Your task to perform on an android device: Find coffee shops on Maps Image 0: 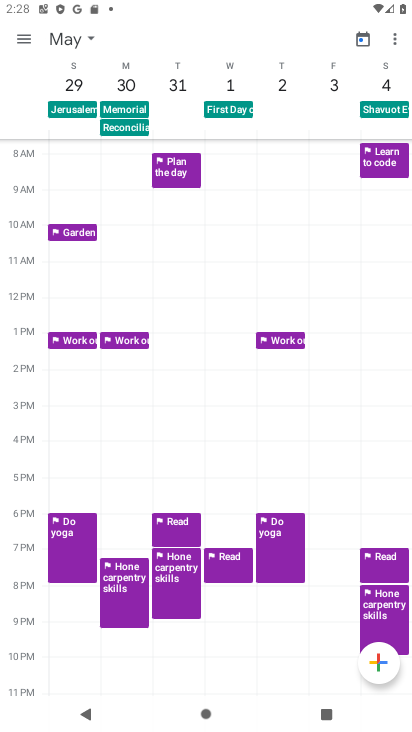
Step 0: press home button
Your task to perform on an android device: Find coffee shops on Maps Image 1: 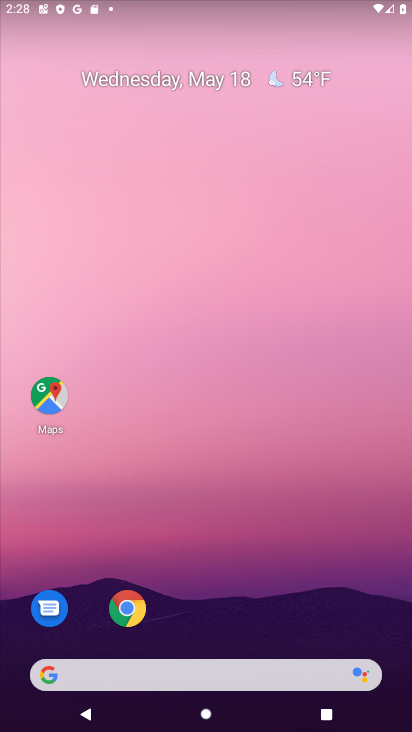
Step 1: click (53, 396)
Your task to perform on an android device: Find coffee shops on Maps Image 2: 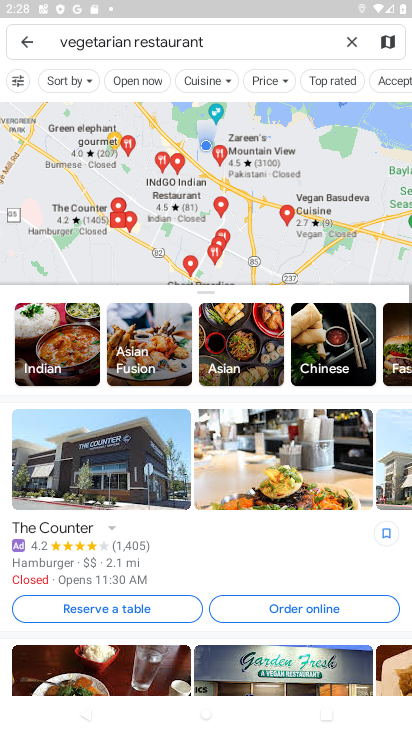
Step 2: click (214, 27)
Your task to perform on an android device: Find coffee shops on Maps Image 3: 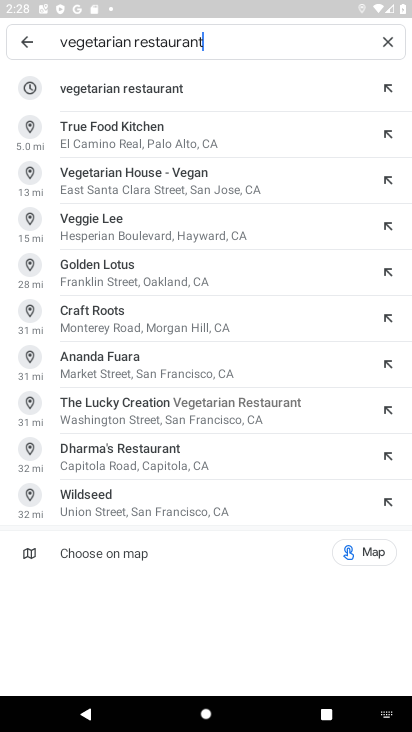
Step 3: click (344, 45)
Your task to perform on an android device: Find coffee shops on Maps Image 4: 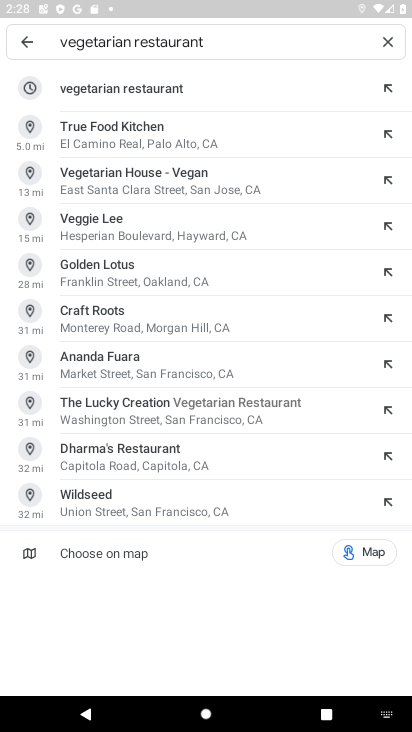
Step 4: click (384, 48)
Your task to perform on an android device: Find coffee shops on Maps Image 5: 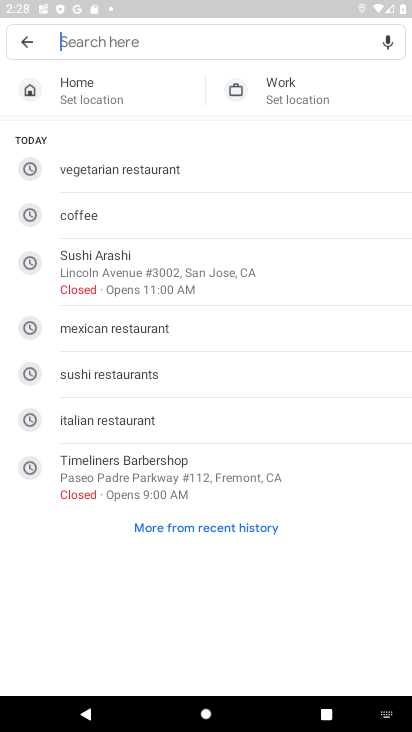
Step 5: click (117, 35)
Your task to perform on an android device: Find coffee shops on Maps Image 6: 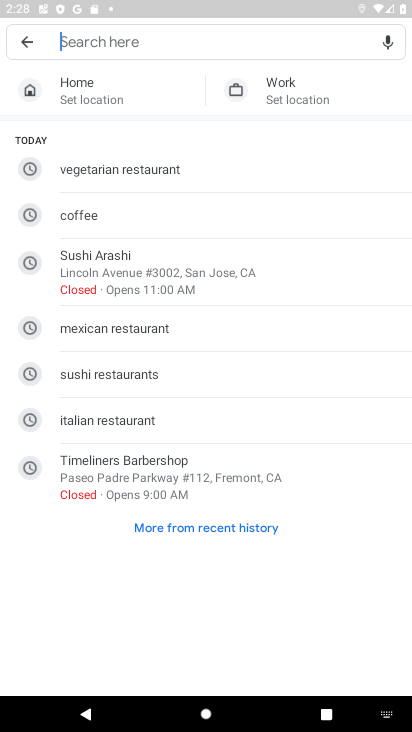
Step 6: type "coffee shops"
Your task to perform on an android device: Find coffee shops on Maps Image 7: 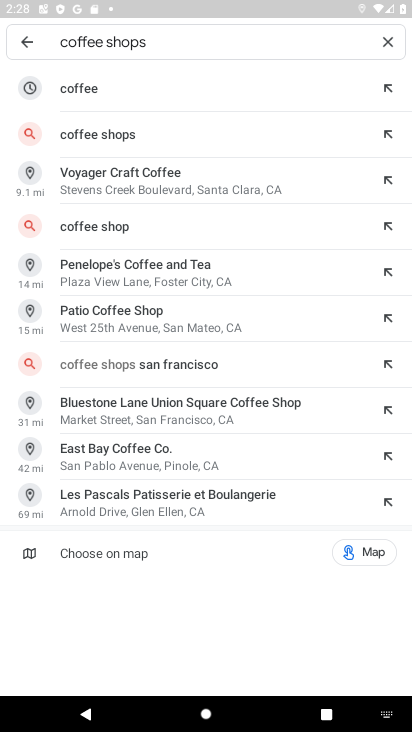
Step 7: click (83, 140)
Your task to perform on an android device: Find coffee shops on Maps Image 8: 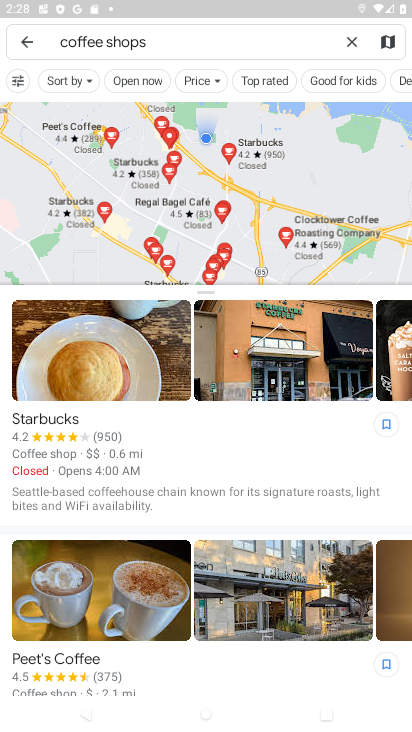
Step 8: task complete